Your task to perform on an android device: clear history in the chrome app Image 0: 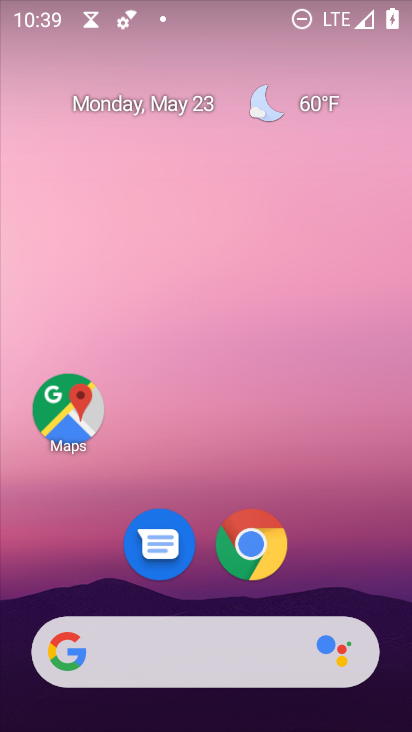
Step 0: drag from (328, 575) to (104, 105)
Your task to perform on an android device: clear history in the chrome app Image 1: 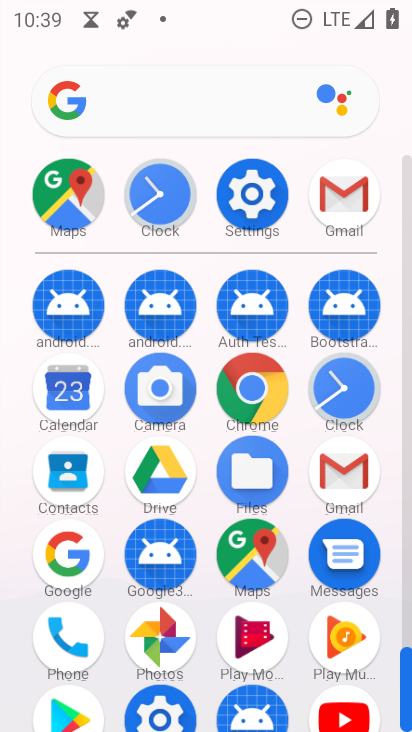
Step 1: click (257, 396)
Your task to perform on an android device: clear history in the chrome app Image 2: 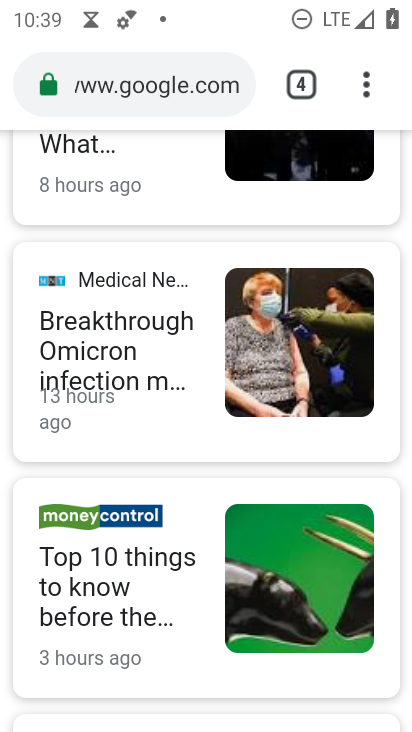
Step 2: click (365, 89)
Your task to perform on an android device: clear history in the chrome app Image 3: 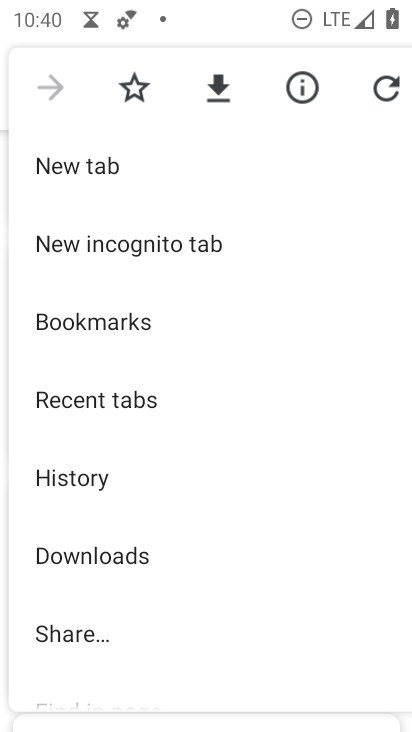
Step 3: click (93, 482)
Your task to perform on an android device: clear history in the chrome app Image 4: 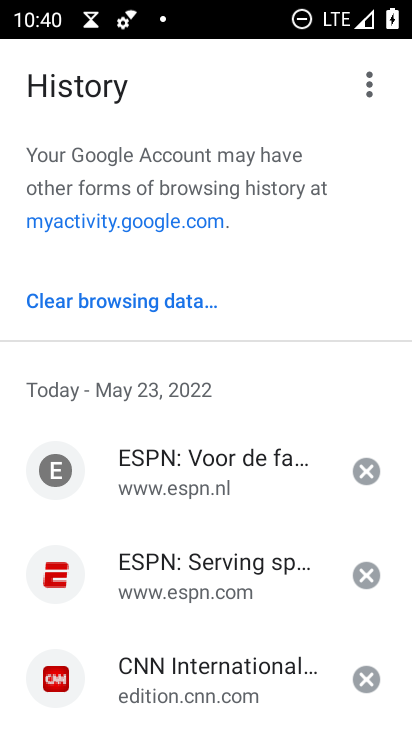
Step 4: click (99, 300)
Your task to perform on an android device: clear history in the chrome app Image 5: 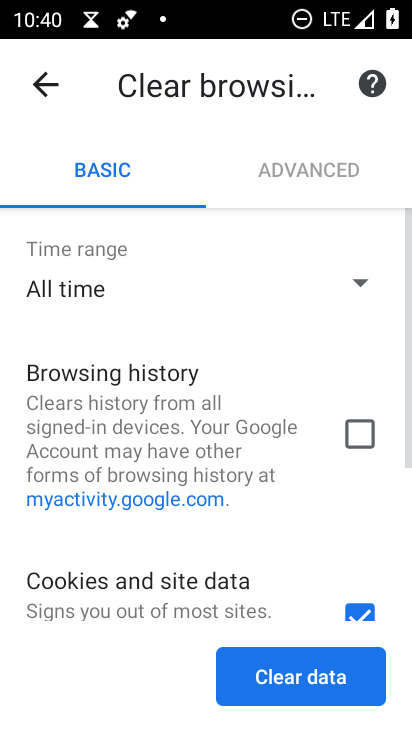
Step 5: click (352, 442)
Your task to perform on an android device: clear history in the chrome app Image 6: 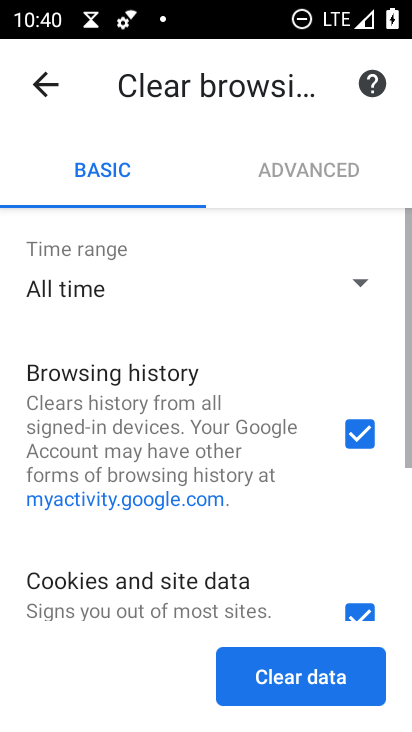
Step 6: click (366, 610)
Your task to perform on an android device: clear history in the chrome app Image 7: 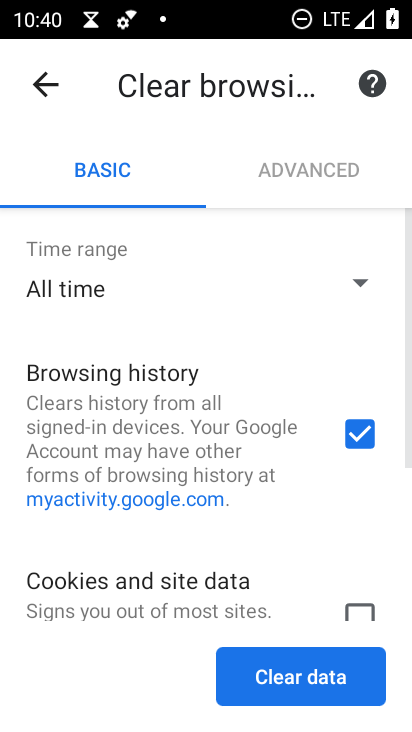
Step 7: click (312, 671)
Your task to perform on an android device: clear history in the chrome app Image 8: 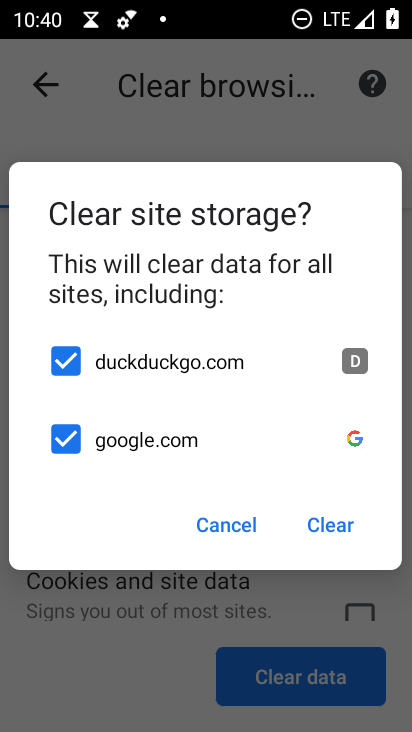
Step 8: click (343, 527)
Your task to perform on an android device: clear history in the chrome app Image 9: 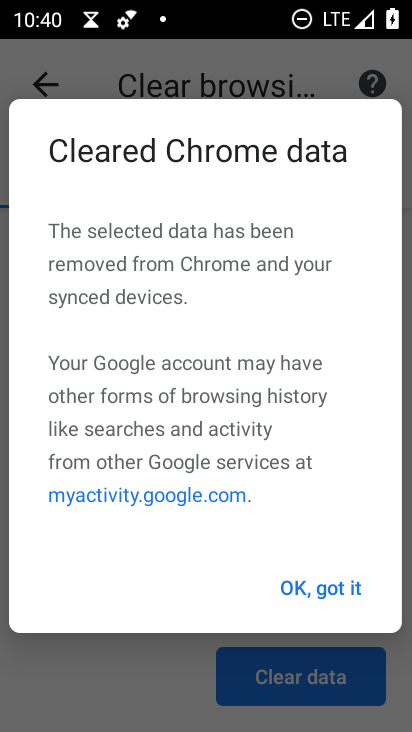
Step 9: click (324, 585)
Your task to perform on an android device: clear history in the chrome app Image 10: 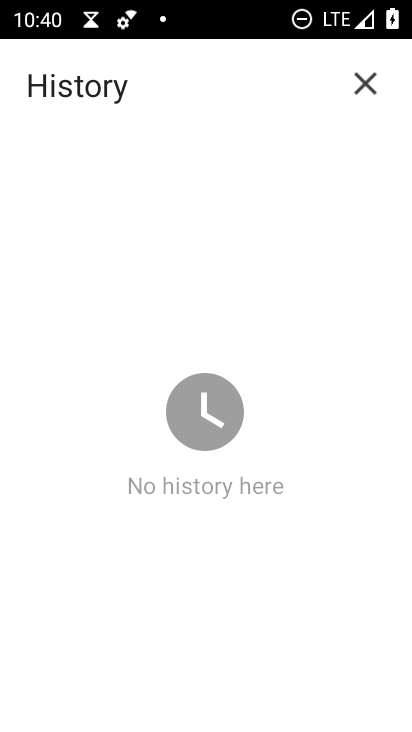
Step 10: task complete